Your task to perform on an android device: toggle notifications settings in the gmail app Image 0: 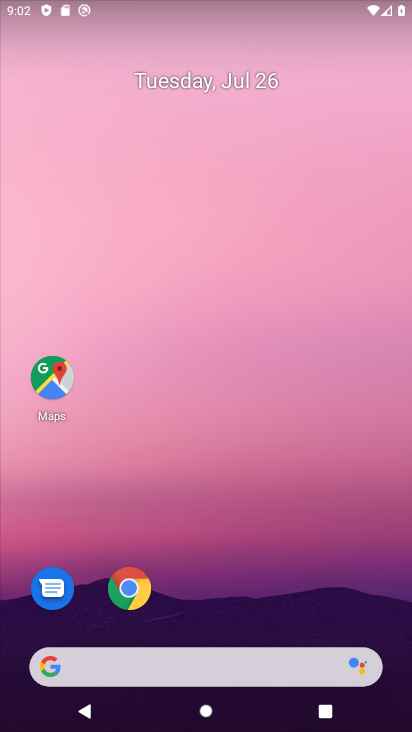
Step 0: drag from (175, 643) to (178, 290)
Your task to perform on an android device: toggle notifications settings in the gmail app Image 1: 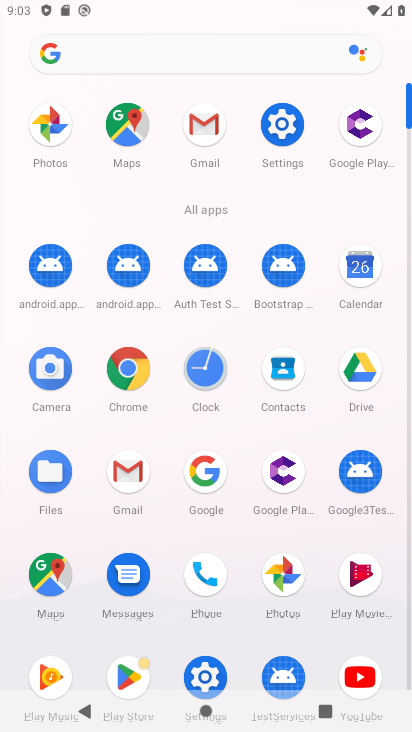
Step 1: click (133, 475)
Your task to perform on an android device: toggle notifications settings in the gmail app Image 2: 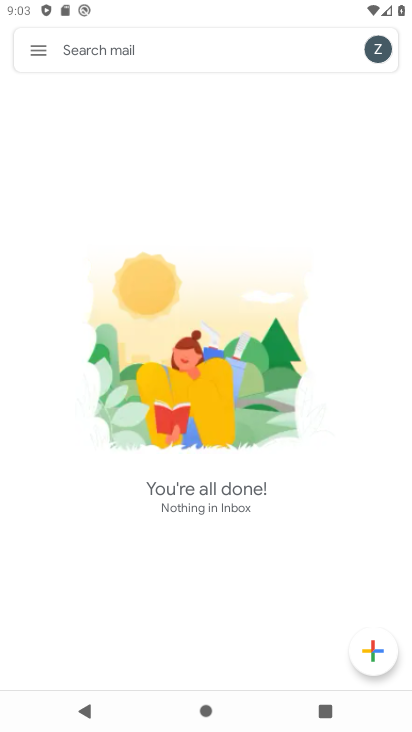
Step 2: click (37, 52)
Your task to perform on an android device: toggle notifications settings in the gmail app Image 3: 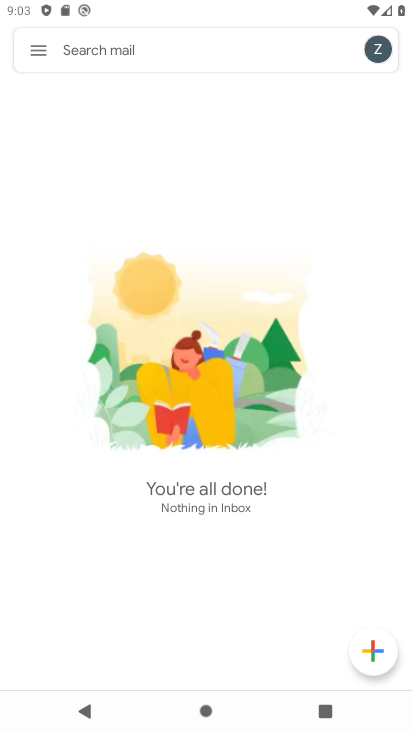
Step 3: click (41, 42)
Your task to perform on an android device: toggle notifications settings in the gmail app Image 4: 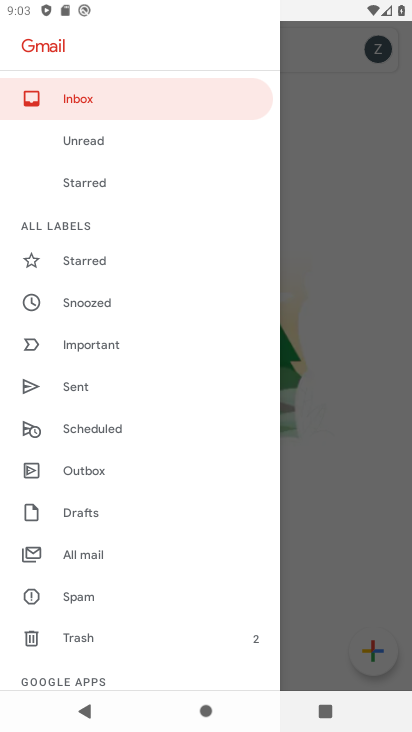
Step 4: drag from (115, 613) to (172, 226)
Your task to perform on an android device: toggle notifications settings in the gmail app Image 5: 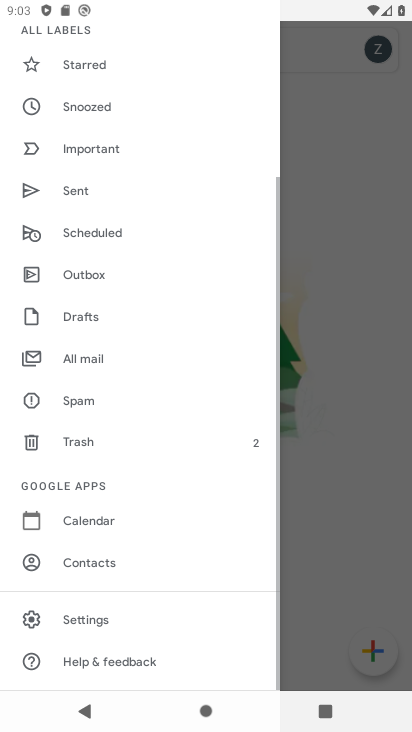
Step 5: click (85, 624)
Your task to perform on an android device: toggle notifications settings in the gmail app Image 6: 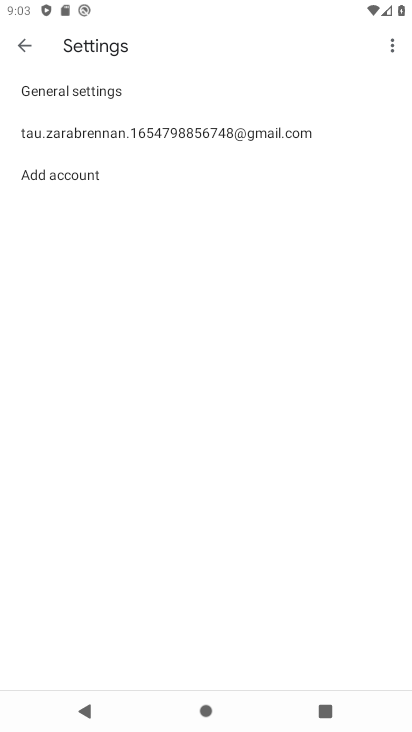
Step 6: click (137, 136)
Your task to perform on an android device: toggle notifications settings in the gmail app Image 7: 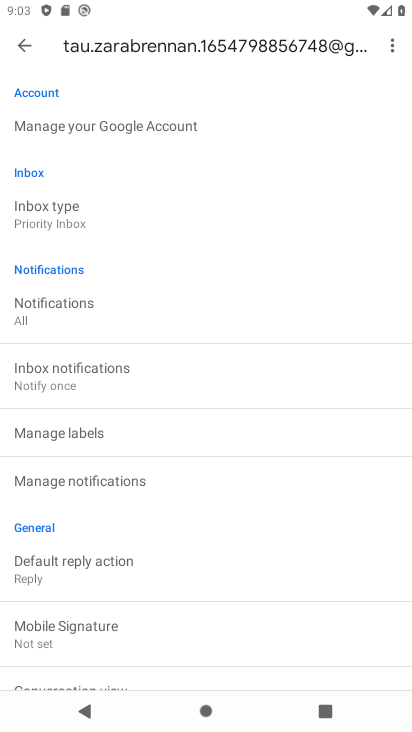
Step 7: click (67, 471)
Your task to perform on an android device: toggle notifications settings in the gmail app Image 8: 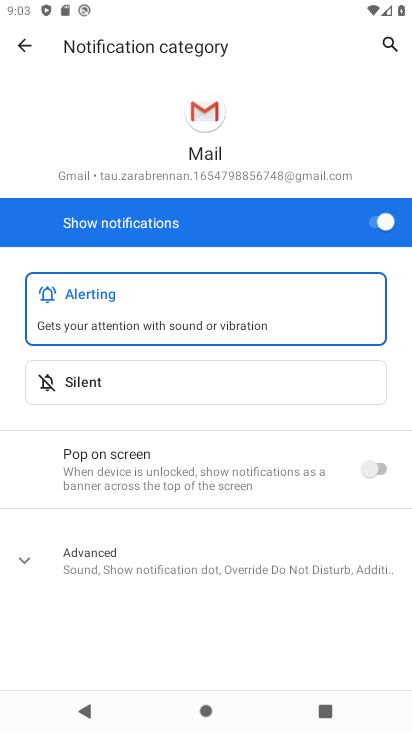
Step 8: click (379, 224)
Your task to perform on an android device: toggle notifications settings in the gmail app Image 9: 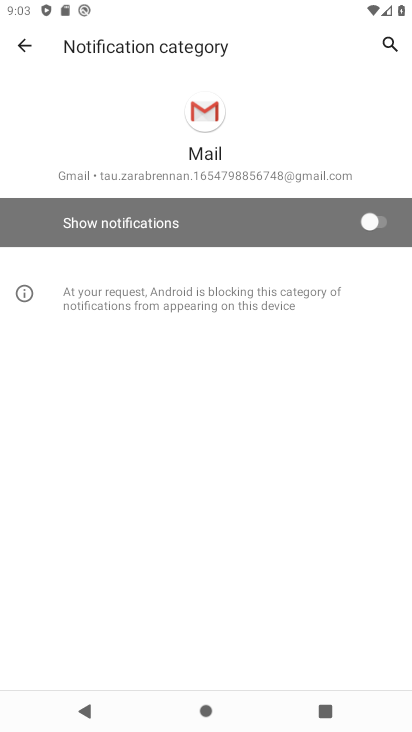
Step 9: task complete